Your task to perform on an android device: Search for sushi restaurants on Maps Image 0: 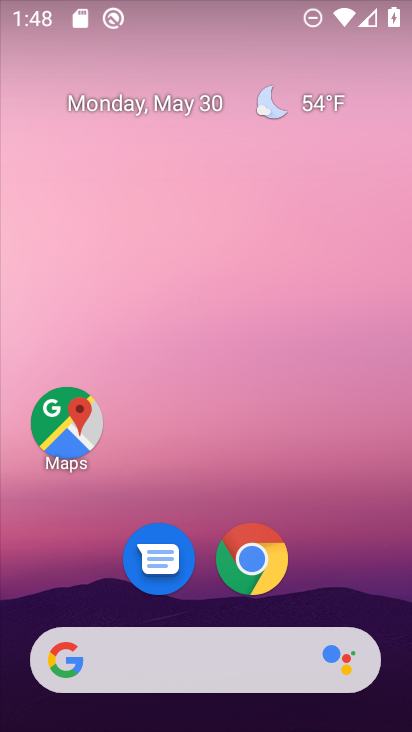
Step 0: click (59, 417)
Your task to perform on an android device: Search for sushi restaurants on Maps Image 1: 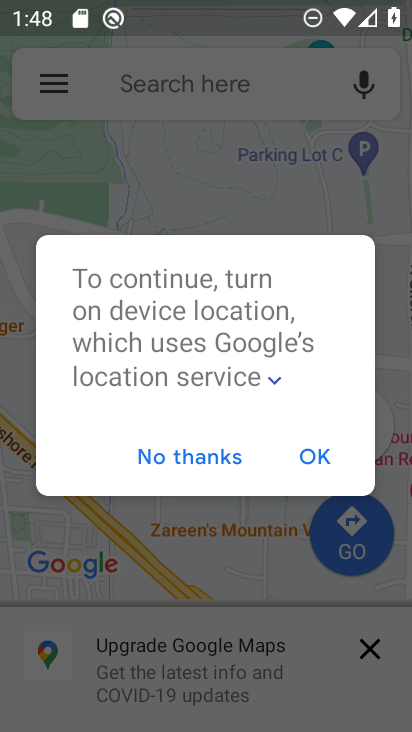
Step 1: click (311, 459)
Your task to perform on an android device: Search for sushi restaurants on Maps Image 2: 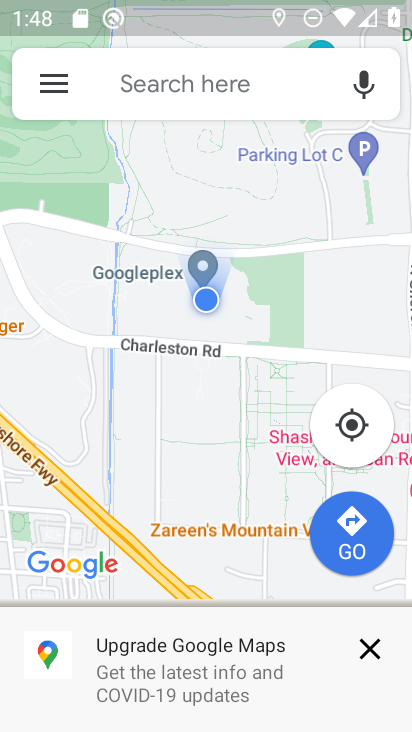
Step 2: click (239, 84)
Your task to perform on an android device: Search for sushi restaurants on Maps Image 3: 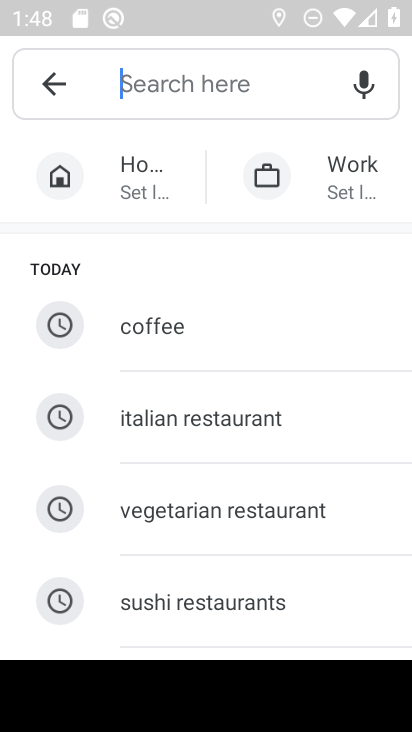
Step 3: type "sushi restaurants"
Your task to perform on an android device: Search for sushi restaurants on Maps Image 4: 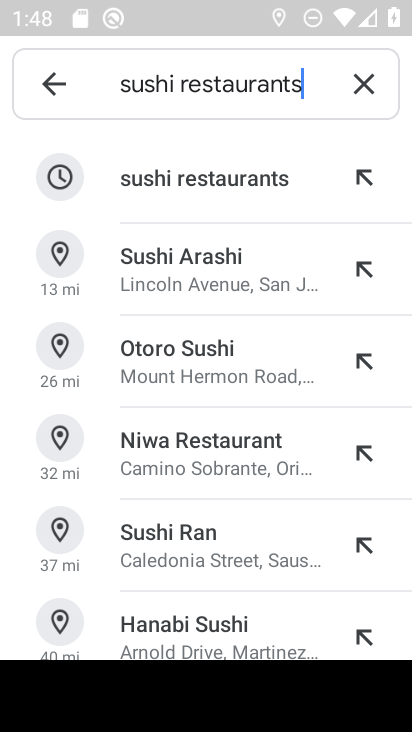
Step 4: click (196, 179)
Your task to perform on an android device: Search for sushi restaurants on Maps Image 5: 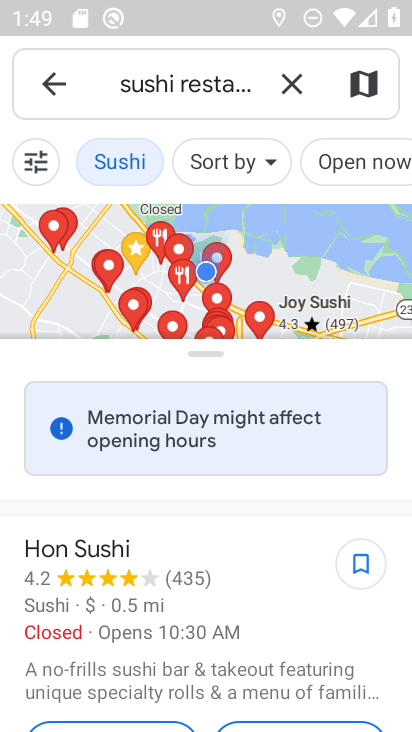
Step 5: task complete